Your task to perform on an android device: star an email in the gmail app Image 0: 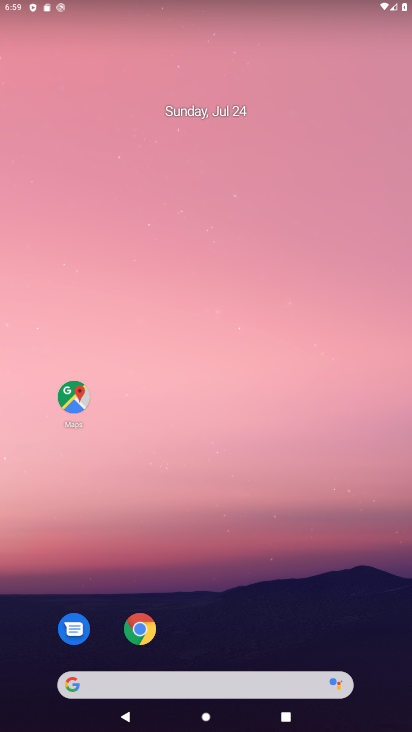
Step 0: drag from (259, 456) to (155, 2)
Your task to perform on an android device: star an email in the gmail app Image 1: 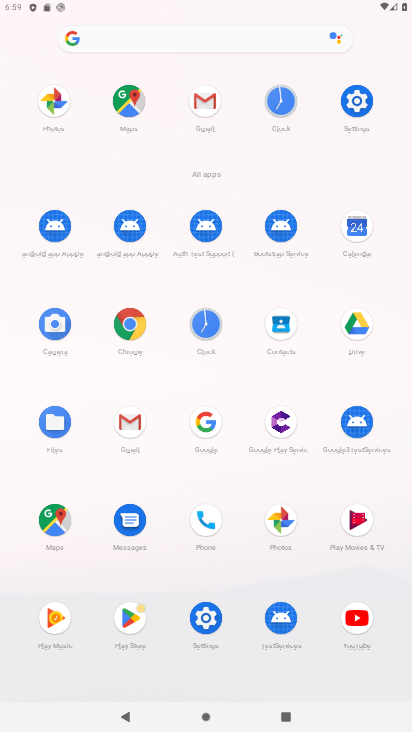
Step 1: click (117, 415)
Your task to perform on an android device: star an email in the gmail app Image 2: 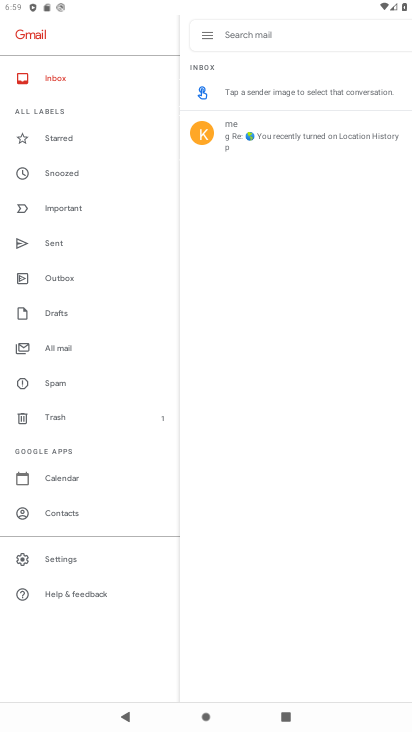
Step 2: click (274, 138)
Your task to perform on an android device: star an email in the gmail app Image 3: 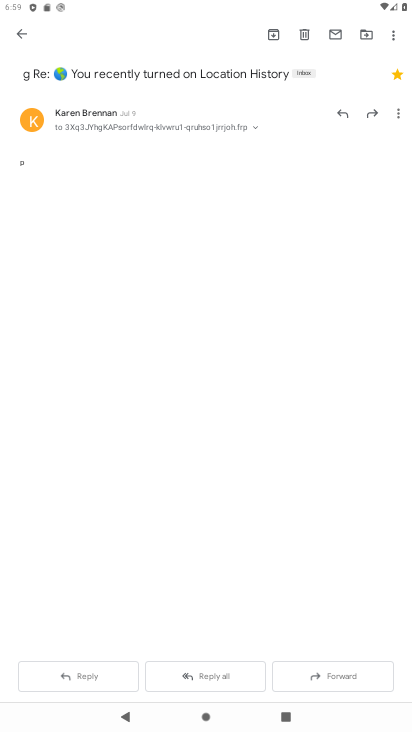
Step 3: task complete